Your task to perform on an android device: allow notifications from all sites in the chrome app Image 0: 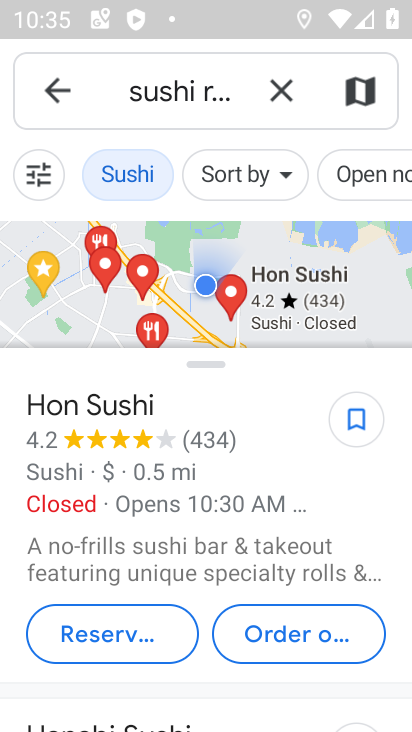
Step 0: press home button
Your task to perform on an android device: allow notifications from all sites in the chrome app Image 1: 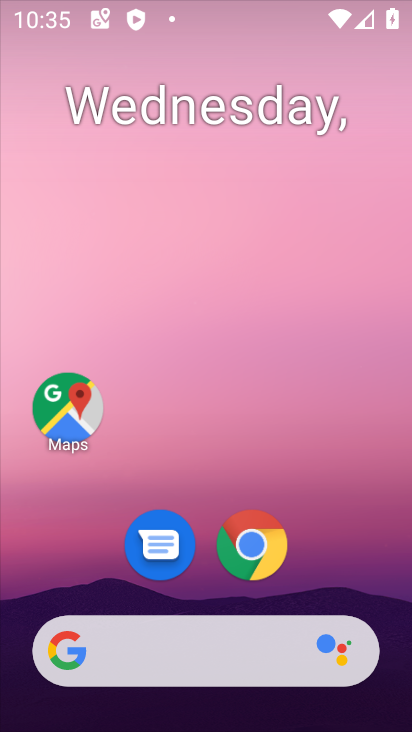
Step 1: click (251, 565)
Your task to perform on an android device: allow notifications from all sites in the chrome app Image 2: 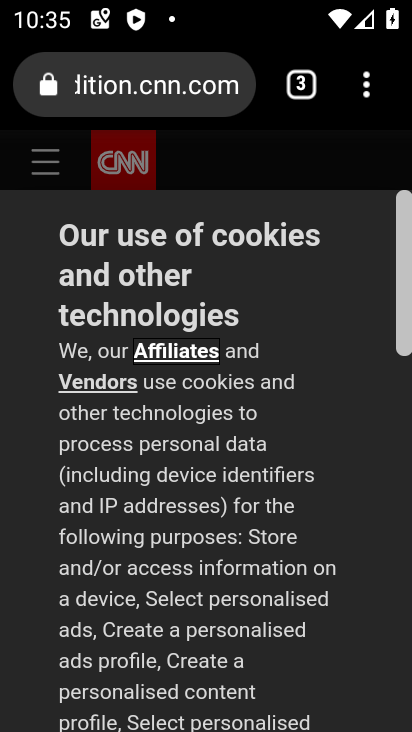
Step 2: click (363, 90)
Your task to perform on an android device: allow notifications from all sites in the chrome app Image 3: 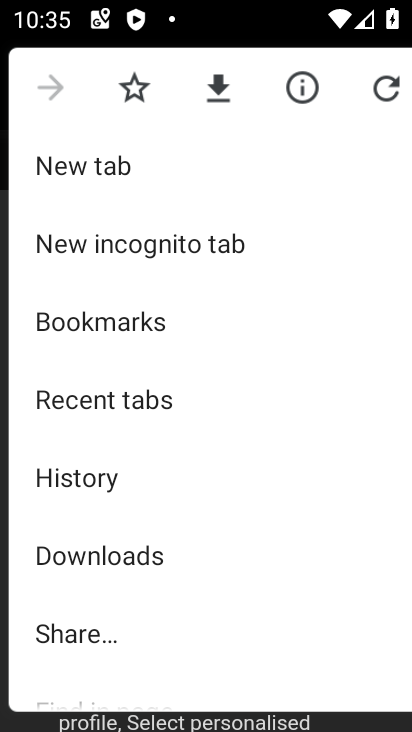
Step 3: drag from (126, 590) to (173, 441)
Your task to perform on an android device: allow notifications from all sites in the chrome app Image 4: 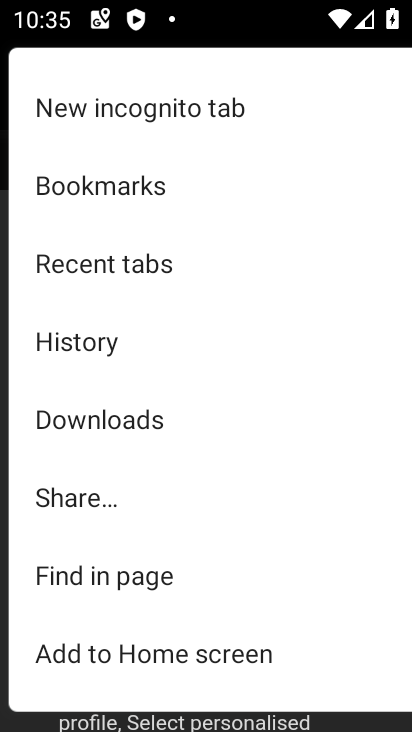
Step 4: drag from (166, 596) to (151, 161)
Your task to perform on an android device: allow notifications from all sites in the chrome app Image 5: 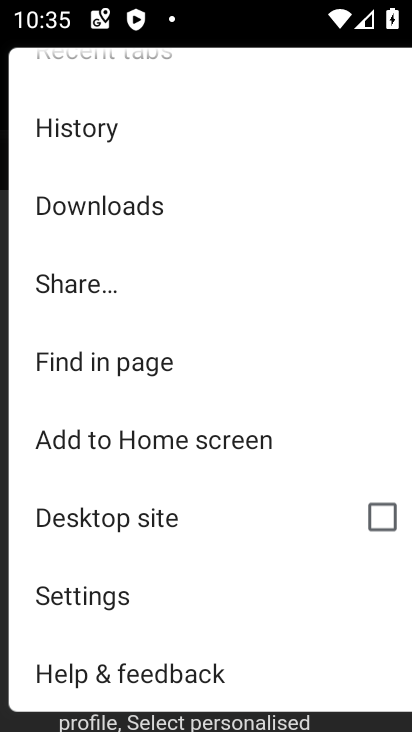
Step 5: click (119, 597)
Your task to perform on an android device: allow notifications from all sites in the chrome app Image 6: 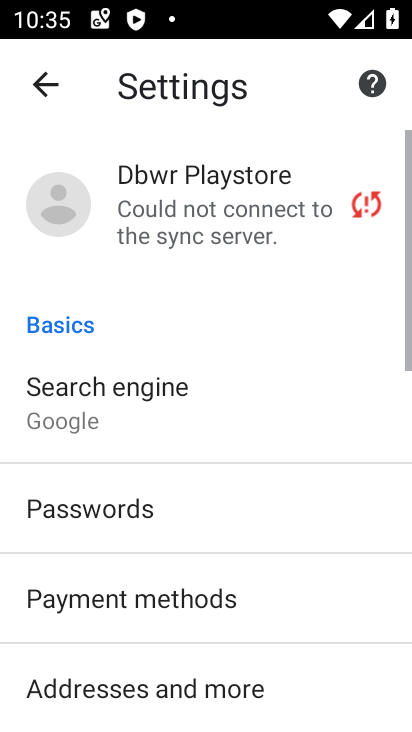
Step 6: drag from (128, 578) to (182, 295)
Your task to perform on an android device: allow notifications from all sites in the chrome app Image 7: 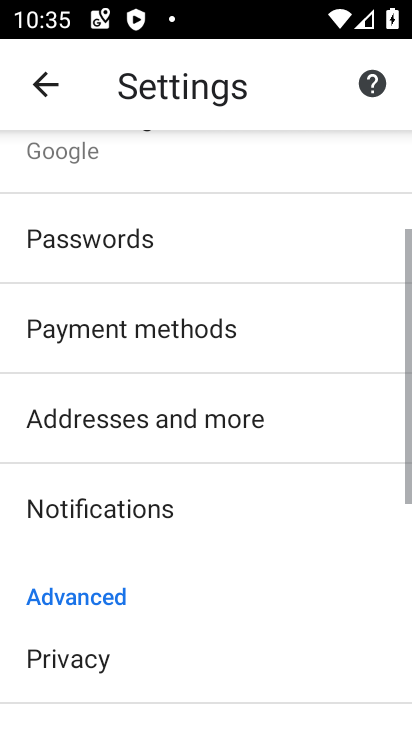
Step 7: drag from (143, 572) to (169, 280)
Your task to perform on an android device: allow notifications from all sites in the chrome app Image 8: 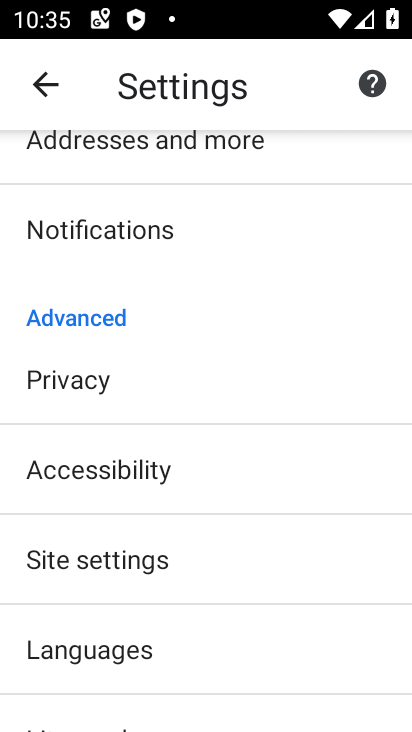
Step 8: click (121, 581)
Your task to perform on an android device: allow notifications from all sites in the chrome app Image 9: 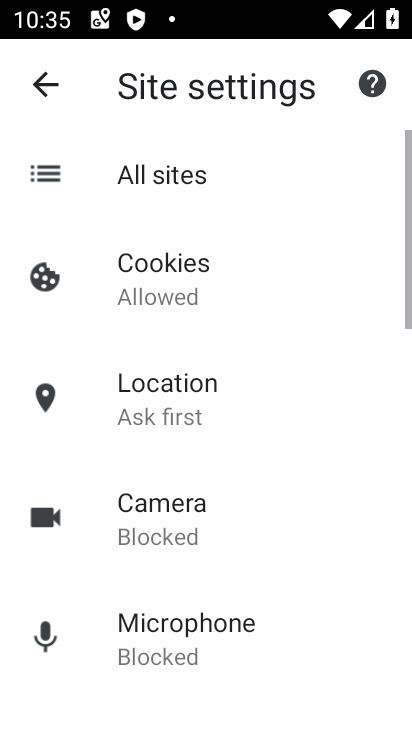
Step 9: click (152, 162)
Your task to perform on an android device: allow notifications from all sites in the chrome app Image 10: 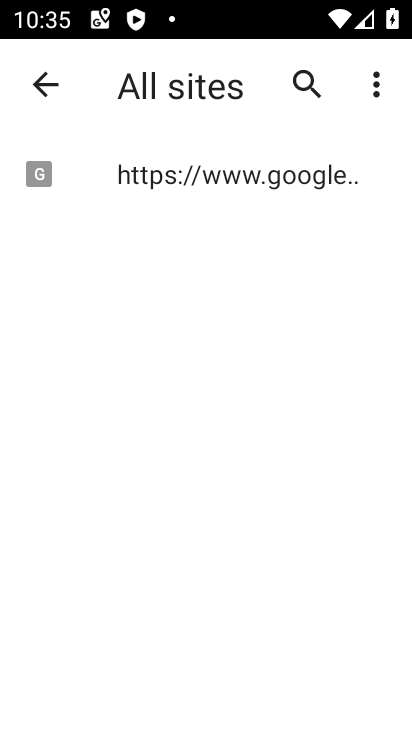
Step 10: click (160, 177)
Your task to perform on an android device: allow notifications from all sites in the chrome app Image 11: 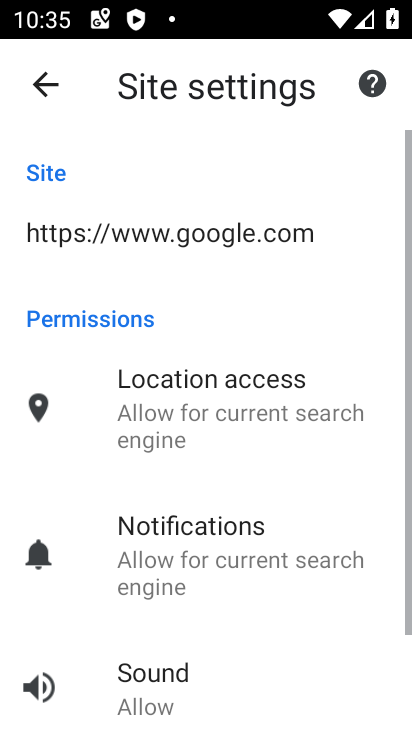
Step 11: click (204, 511)
Your task to perform on an android device: allow notifications from all sites in the chrome app Image 12: 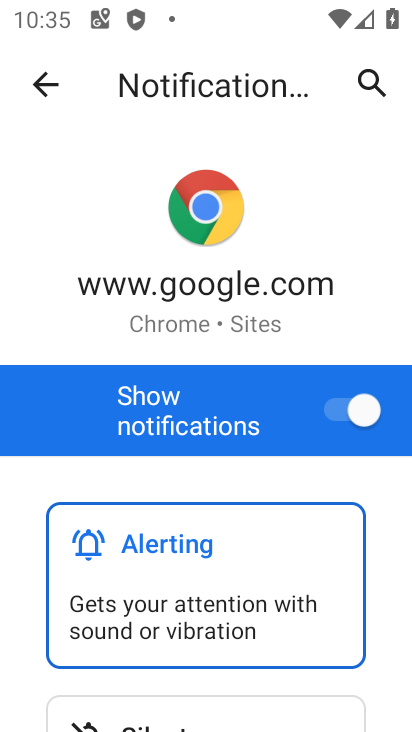
Step 12: task complete